Your task to perform on an android device: Go to settings Image 0: 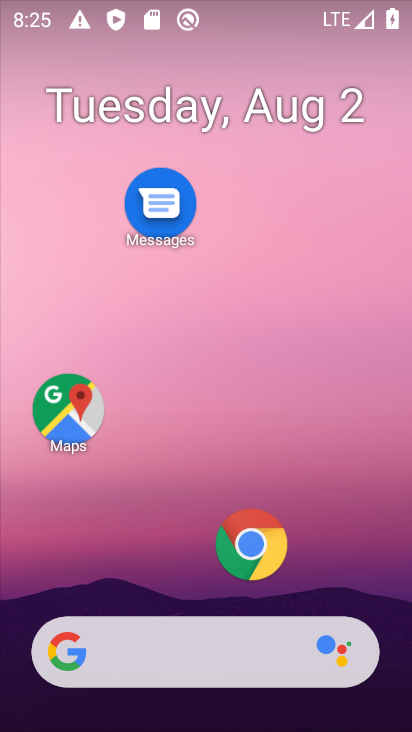
Step 0: drag from (177, 559) to (231, 171)
Your task to perform on an android device: Go to settings Image 1: 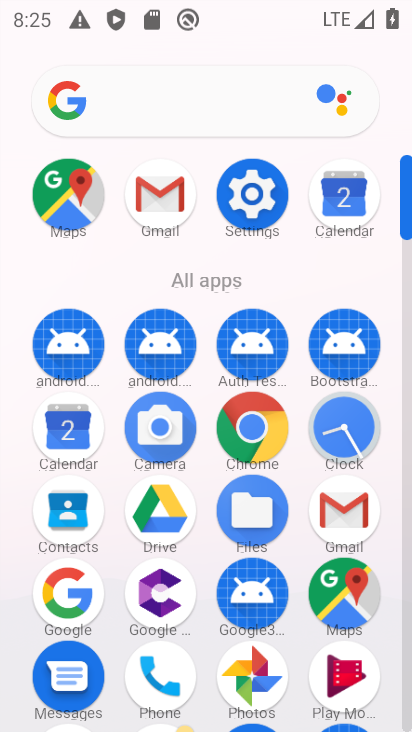
Step 1: click (244, 199)
Your task to perform on an android device: Go to settings Image 2: 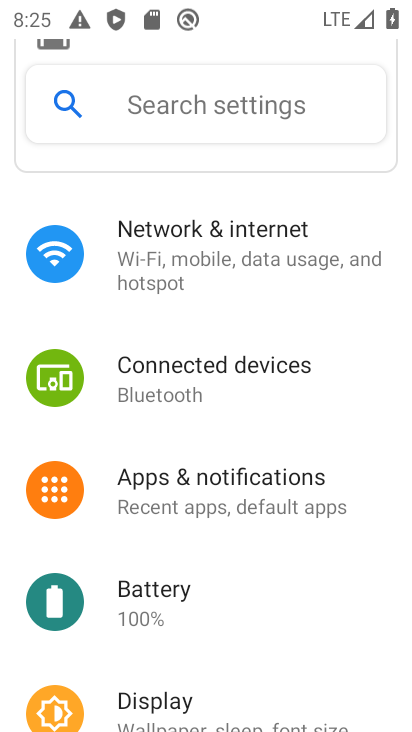
Step 2: task complete